Your task to perform on an android device: See recent photos Image 0: 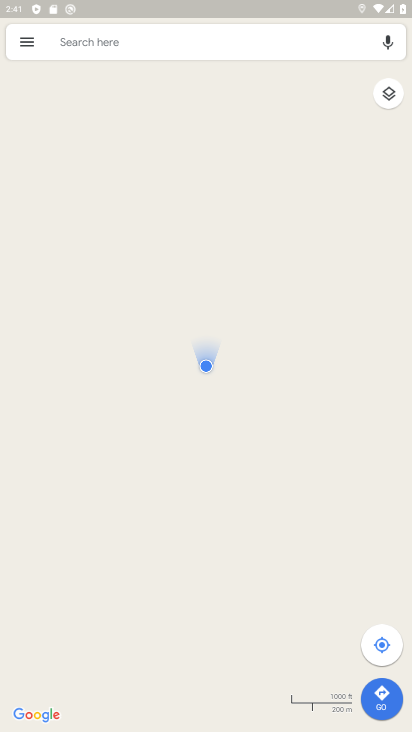
Step 0: press home button
Your task to perform on an android device: See recent photos Image 1: 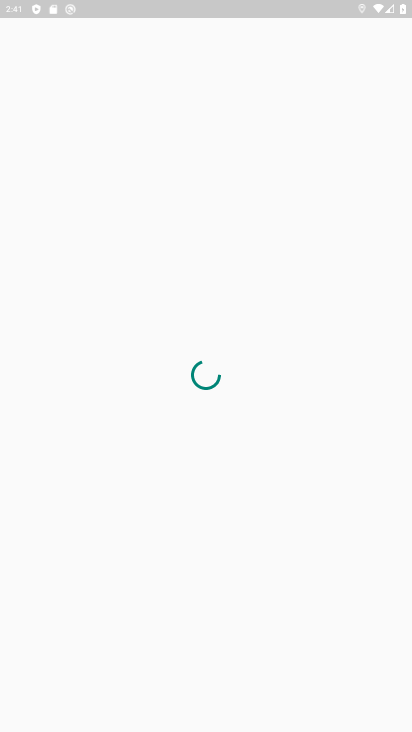
Step 1: press home button
Your task to perform on an android device: See recent photos Image 2: 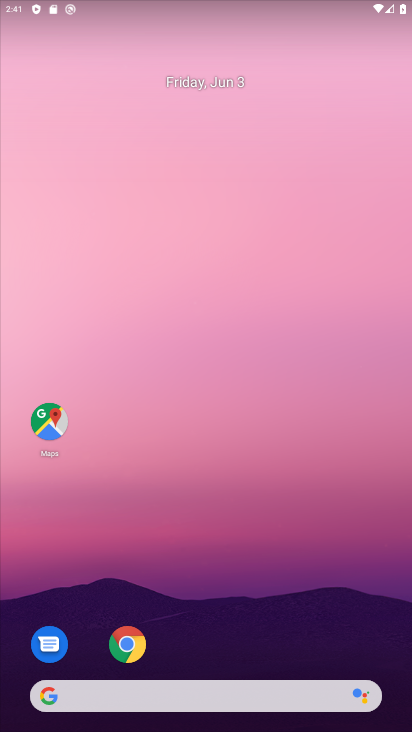
Step 2: drag from (215, 600) to (91, 2)
Your task to perform on an android device: See recent photos Image 3: 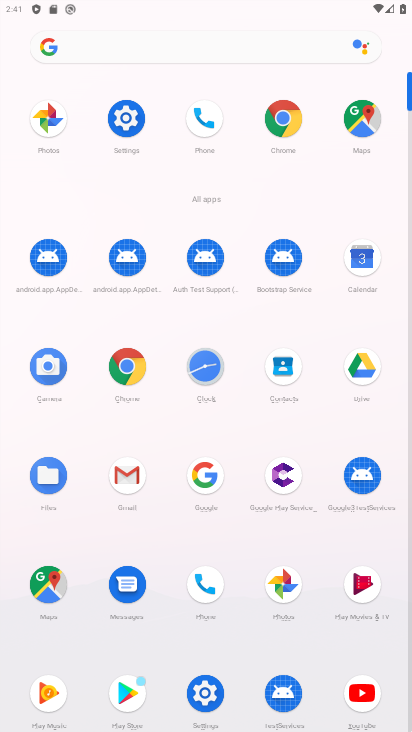
Step 3: click (281, 591)
Your task to perform on an android device: See recent photos Image 4: 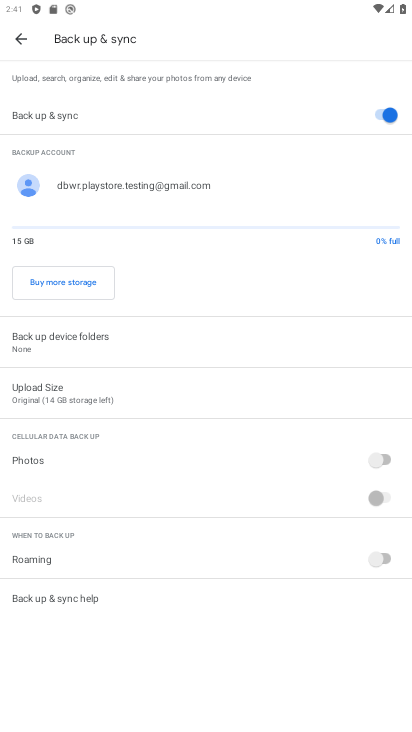
Step 4: click (22, 35)
Your task to perform on an android device: See recent photos Image 5: 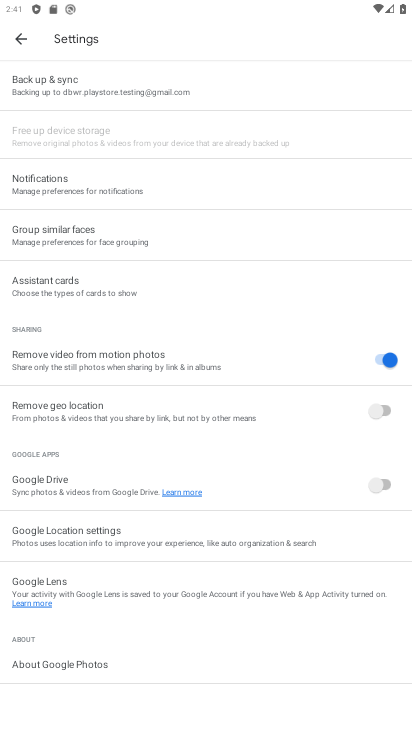
Step 5: click (22, 35)
Your task to perform on an android device: See recent photos Image 6: 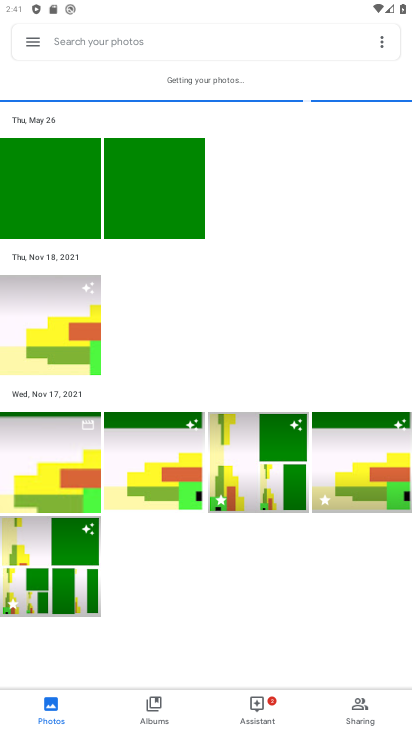
Step 6: task complete